Your task to perform on an android device: open app "Roku - Official Remote Control" (install if not already installed) Image 0: 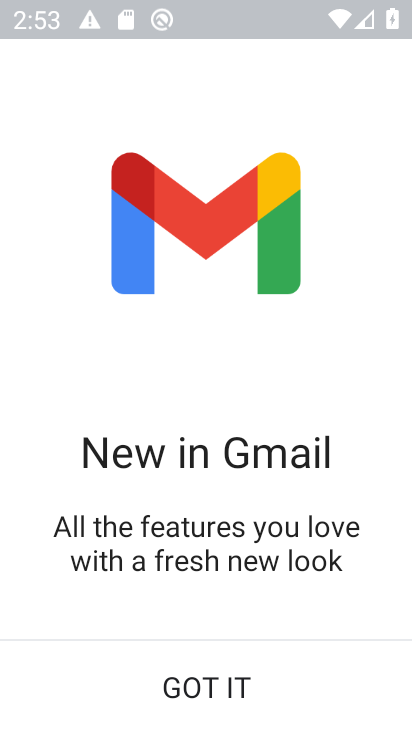
Step 0: press home button
Your task to perform on an android device: open app "Roku - Official Remote Control" (install if not already installed) Image 1: 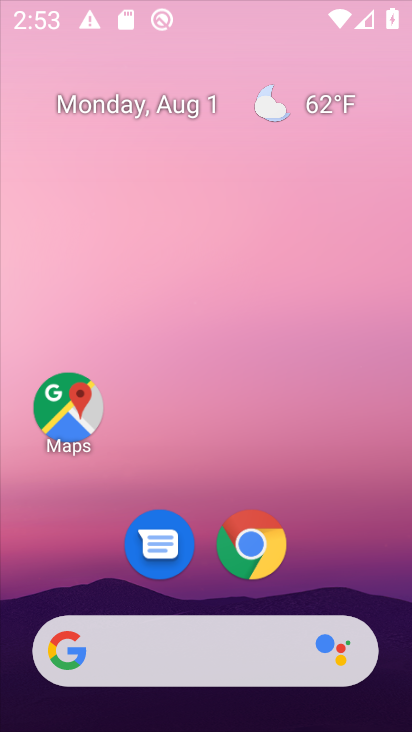
Step 1: drag from (395, 651) to (250, 41)
Your task to perform on an android device: open app "Roku - Official Remote Control" (install if not already installed) Image 2: 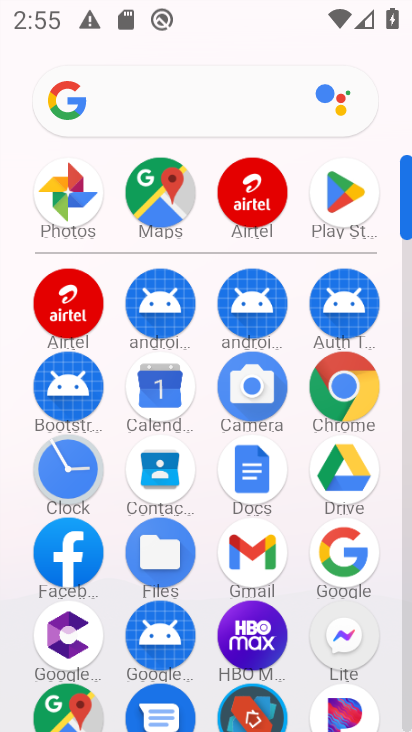
Step 2: click (342, 192)
Your task to perform on an android device: open app "Roku - Official Remote Control" (install if not already installed) Image 3: 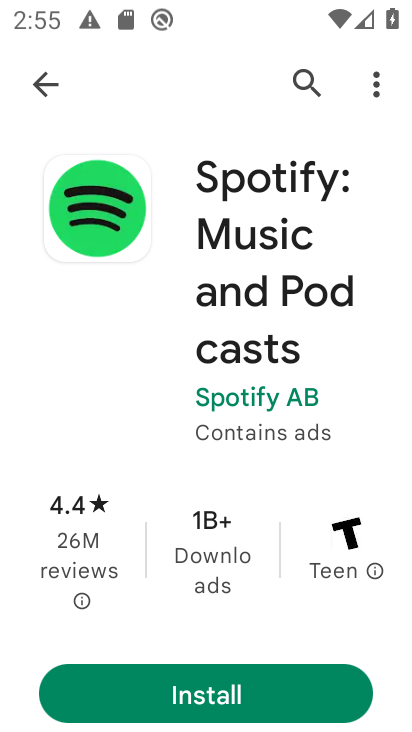
Step 3: press back button
Your task to perform on an android device: open app "Roku - Official Remote Control" (install if not already installed) Image 4: 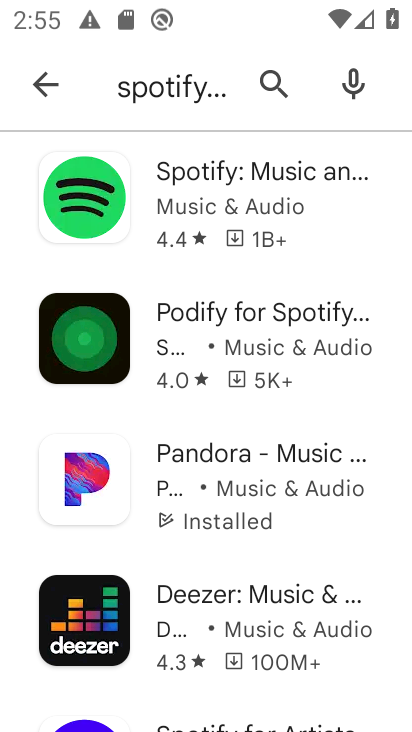
Step 4: press back button
Your task to perform on an android device: open app "Roku - Official Remote Control" (install if not already installed) Image 5: 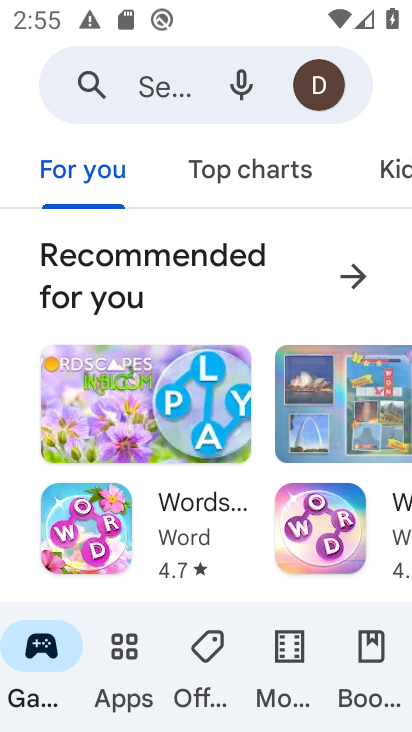
Step 5: click (144, 87)
Your task to perform on an android device: open app "Roku - Official Remote Control" (install if not already installed) Image 6: 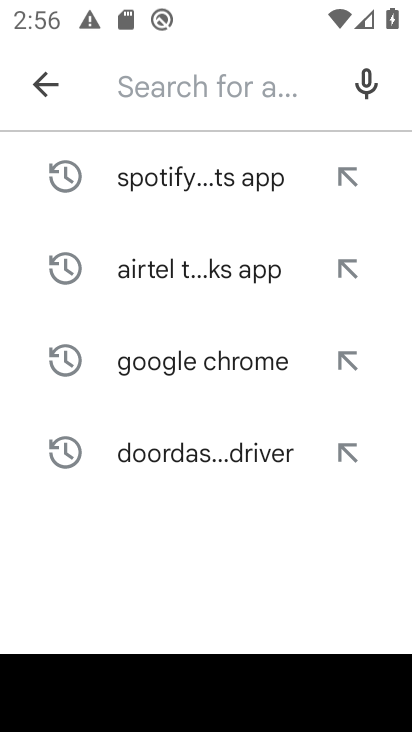
Step 6: type "Roku - Official Remote Control"
Your task to perform on an android device: open app "Roku - Official Remote Control" (install if not already installed) Image 7: 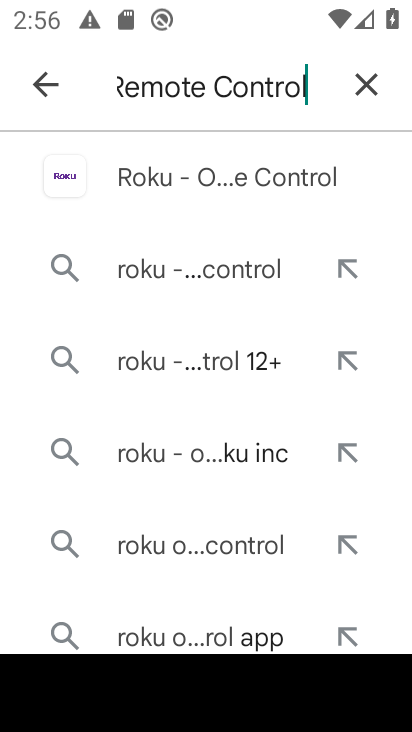
Step 7: click (199, 187)
Your task to perform on an android device: open app "Roku - Official Remote Control" (install if not already installed) Image 8: 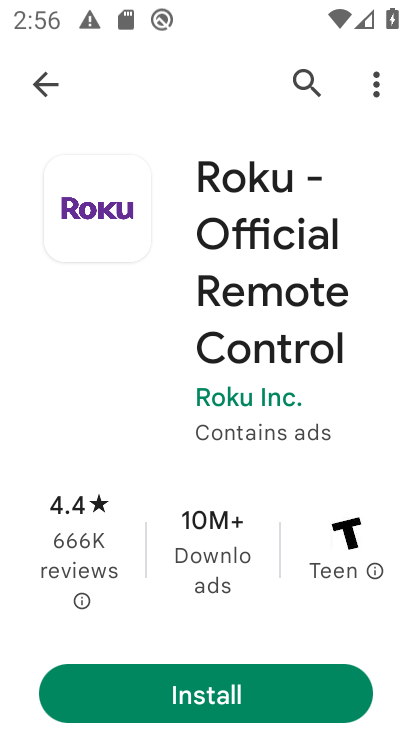
Step 8: task complete